Your task to perform on an android device: all mails in gmail Image 0: 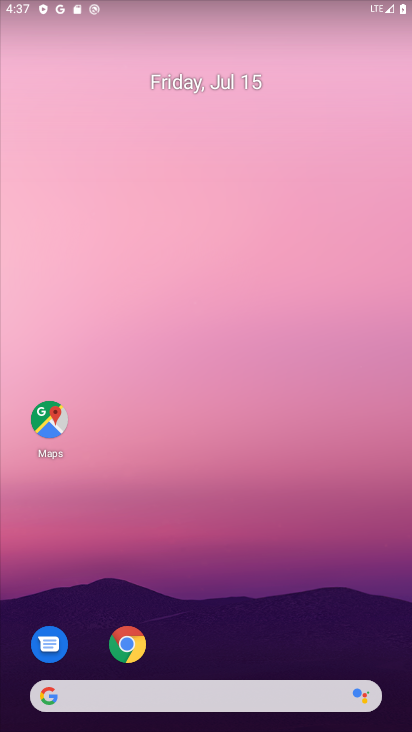
Step 0: drag from (203, 644) to (141, 244)
Your task to perform on an android device: all mails in gmail Image 1: 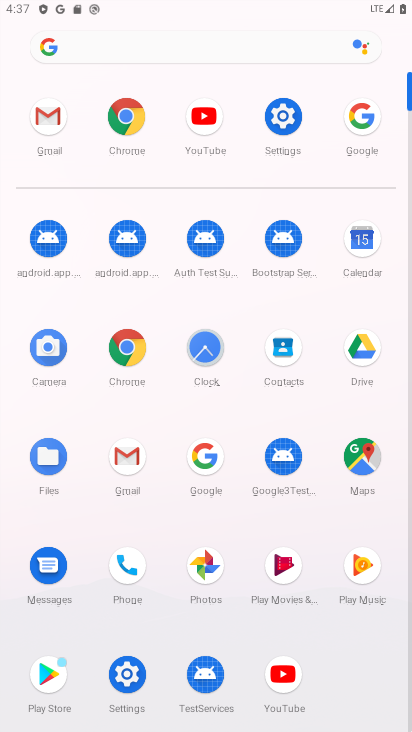
Step 1: click (121, 446)
Your task to perform on an android device: all mails in gmail Image 2: 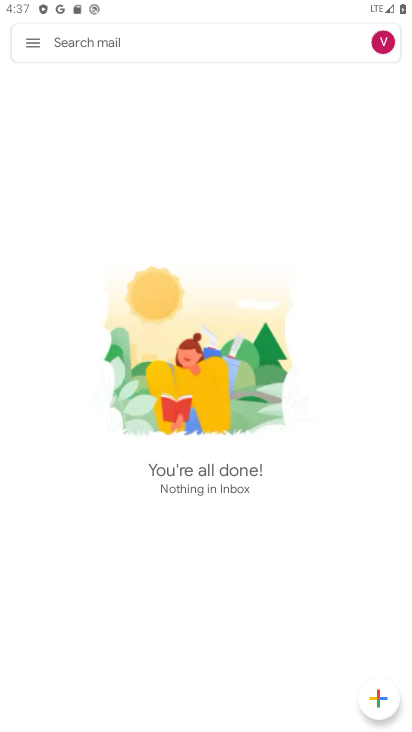
Step 2: click (33, 41)
Your task to perform on an android device: all mails in gmail Image 3: 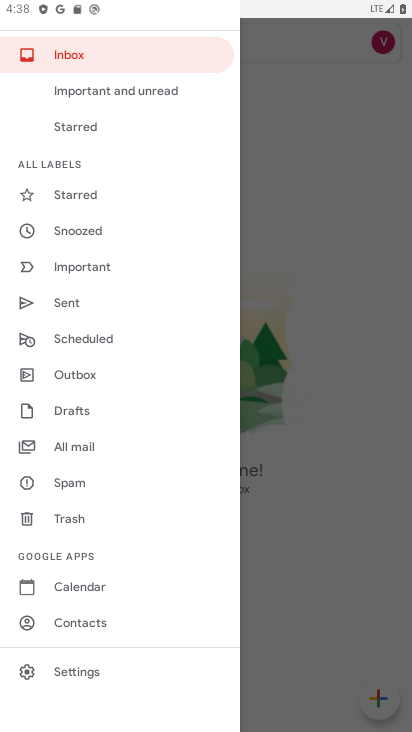
Step 3: click (83, 444)
Your task to perform on an android device: all mails in gmail Image 4: 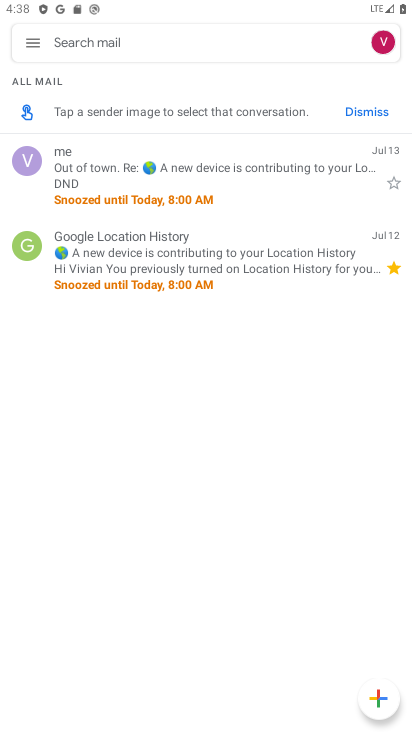
Step 4: task complete